Your task to perform on an android device: Open calendar and show me the first week of next month Image 0: 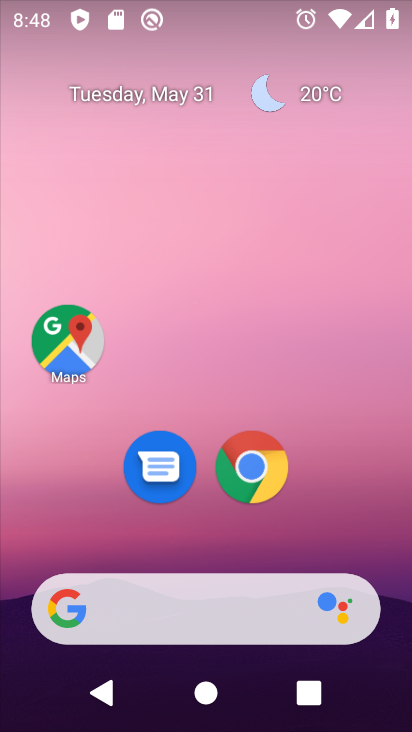
Step 0: drag from (216, 522) to (316, 119)
Your task to perform on an android device: Open calendar and show me the first week of next month Image 1: 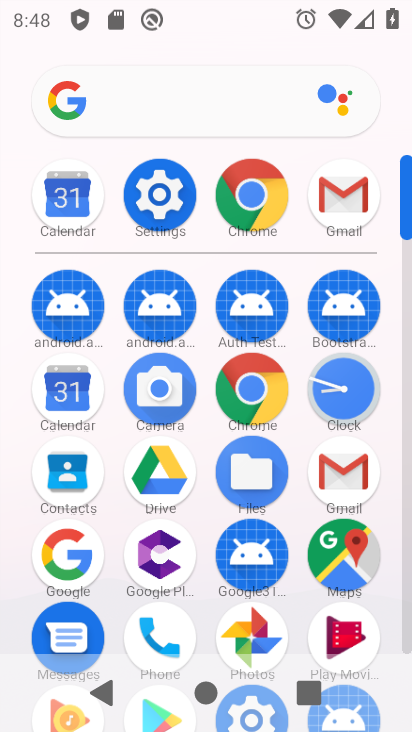
Step 1: click (71, 402)
Your task to perform on an android device: Open calendar and show me the first week of next month Image 2: 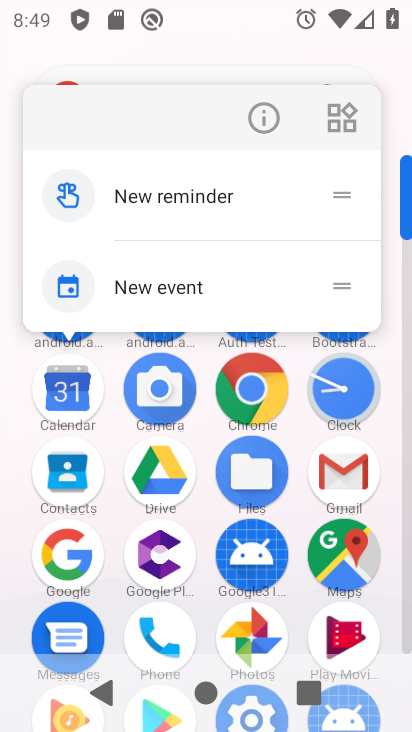
Step 2: click (262, 126)
Your task to perform on an android device: Open calendar and show me the first week of next month Image 3: 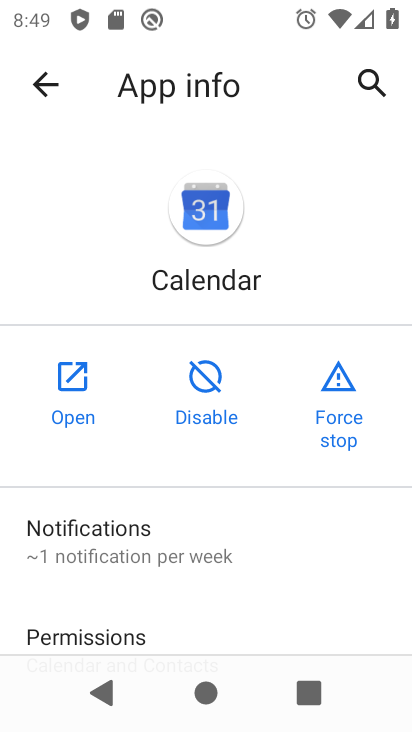
Step 3: click (92, 404)
Your task to perform on an android device: Open calendar and show me the first week of next month Image 4: 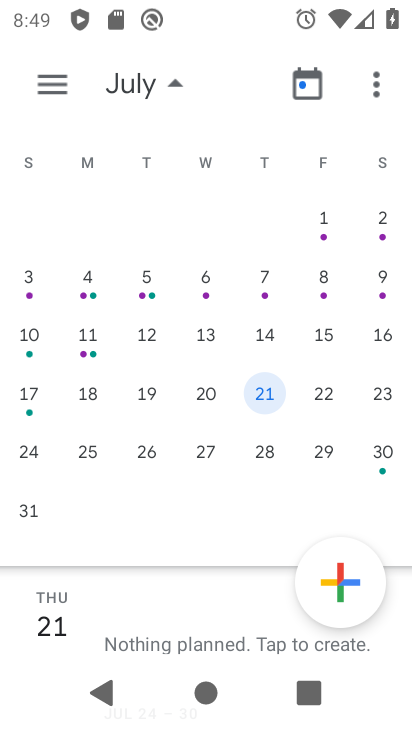
Step 4: drag from (68, 389) to (405, 376)
Your task to perform on an android device: Open calendar and show me the first week of next month Image 5: 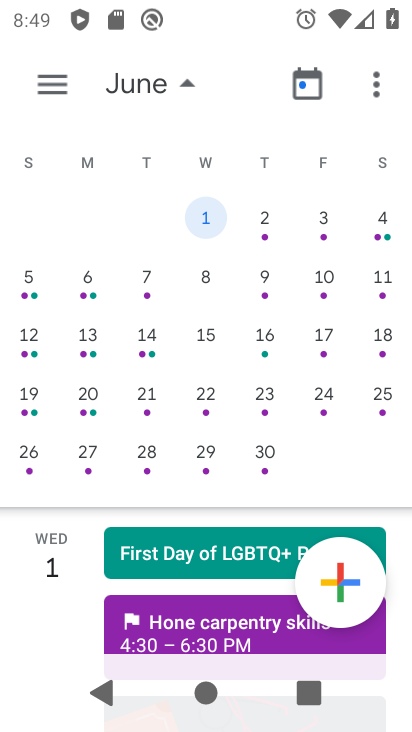
Step 5: drag from (357, 332) to (8, 306)
Your task to perform on an android device: Open calendar and show me the first week of next month Image 6: 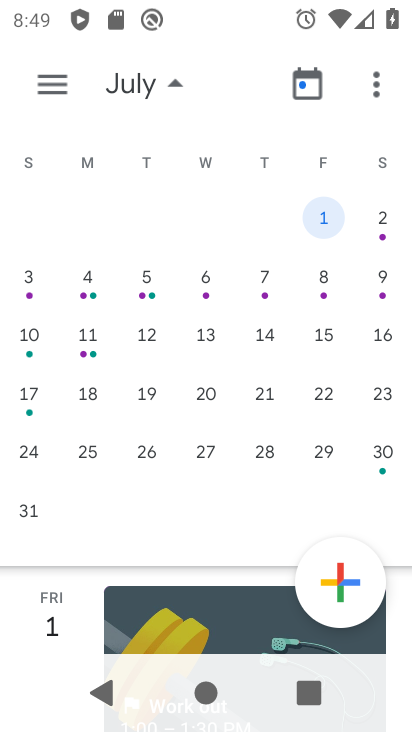
Step 6: click (374, 215)
Your task to perform on an android device: Open calendar and show me the first week of next month Image 7: 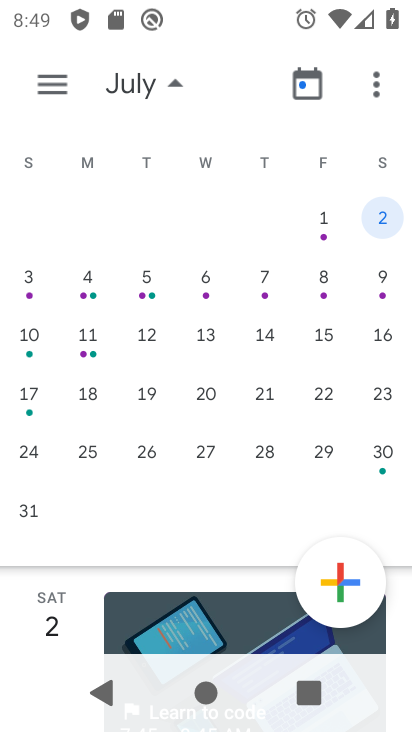
Step 7: task complete